Your task to perform on an android device: Empty the shopping cart on amazon.com. Search for "dell alienware" on amazon.com, select the first entry, and add it to the cart. Image 0: 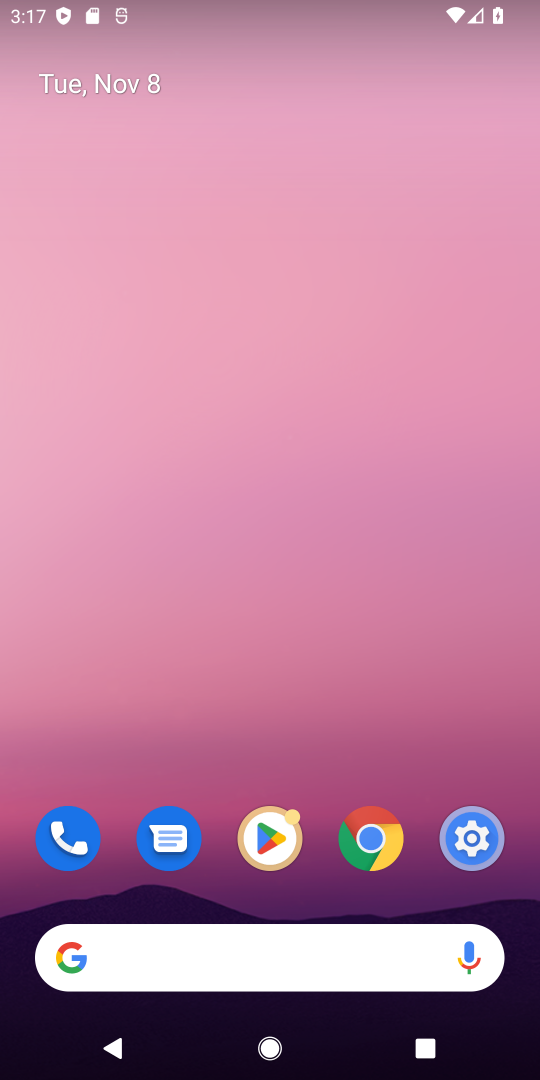
Step 0: drag from (333, 982) to (320, 135)
Your task to perform on an android device: Empty the shopping cart on amazon.com. Search for "dell alienware" on amazon.com, select the first entry, and add it to the cart. Image 1: 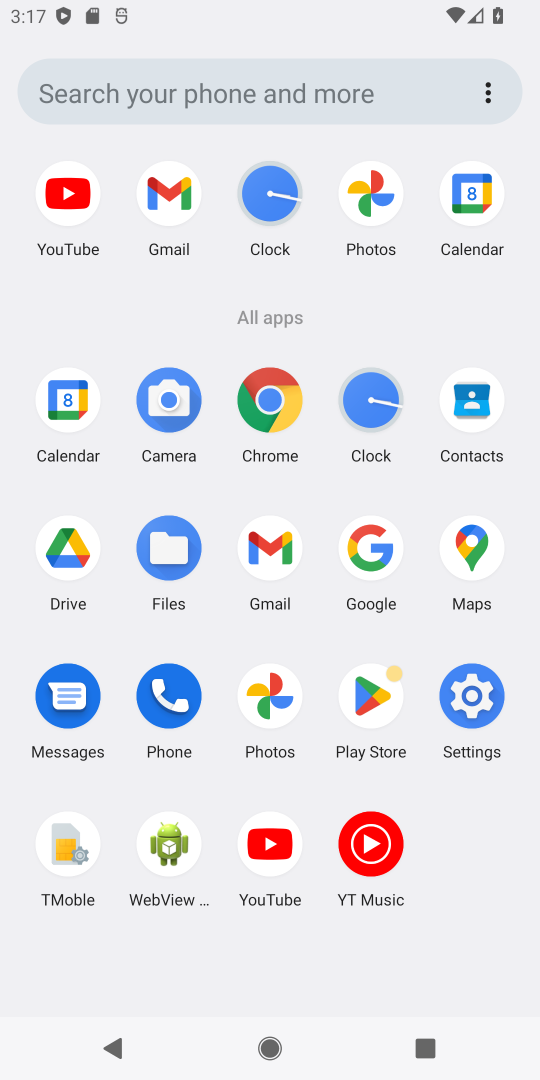
Step 1: click (261, 396)
Your task to perform on an android device: Empty the shopping cart on amazon.com. Search for "dell alienware" on amazon.com, select the first entry, and add it to the cart. Image 2: 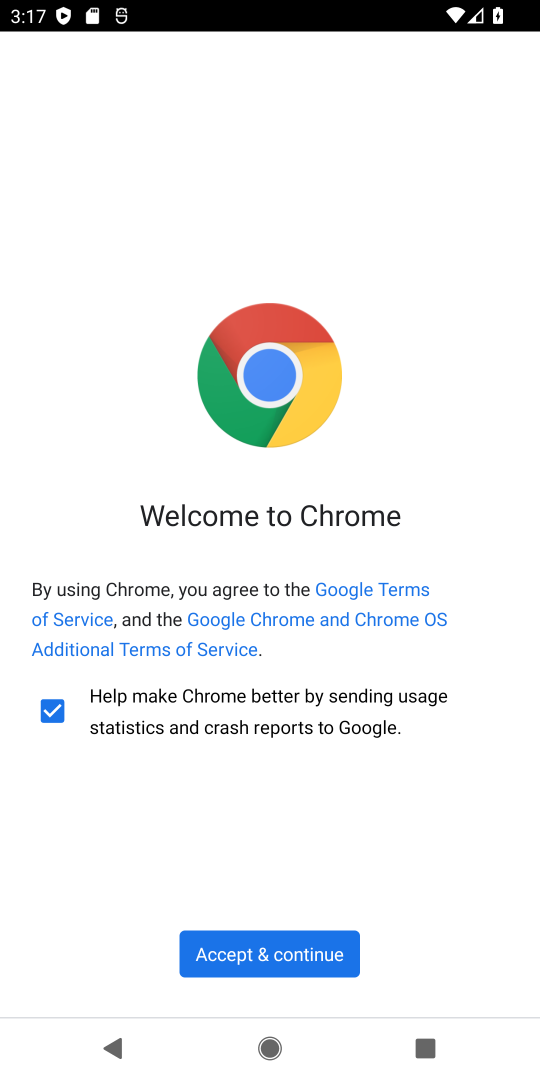
Step 2: click (298, 957)
Your task to perform on an android device: Empty the shopping cart on amazon.com. Search for "dell alienware" on amazon.com, select the first entry, and add it to the cart. Image 3: 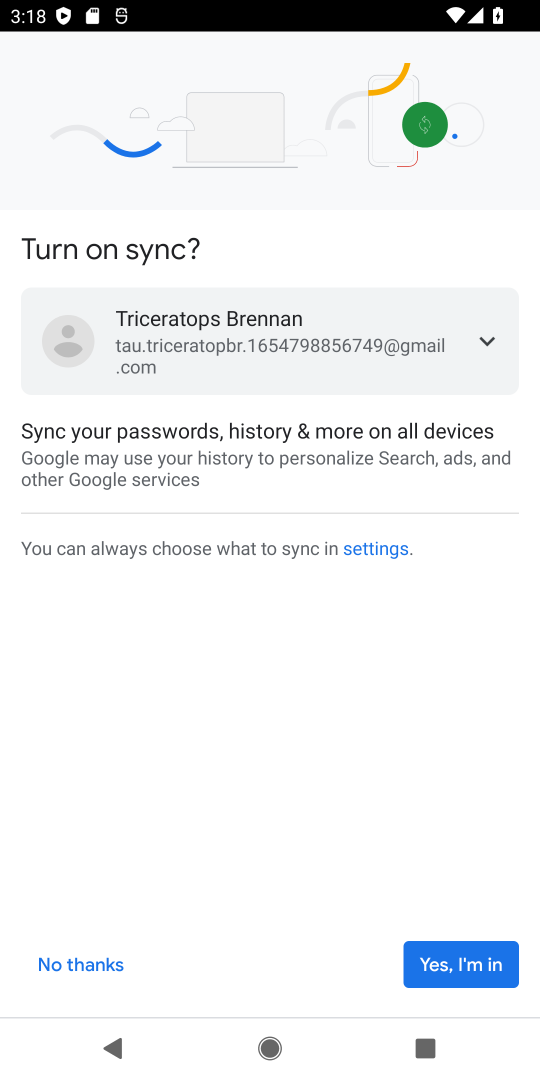
Step 3: click (460, 967)
Your task to perform on an android device: Empty the shopping cart on amazon.com. Search for "dell alienware" on amazon.com, select the first entry, and add it to the cart. Image 4: 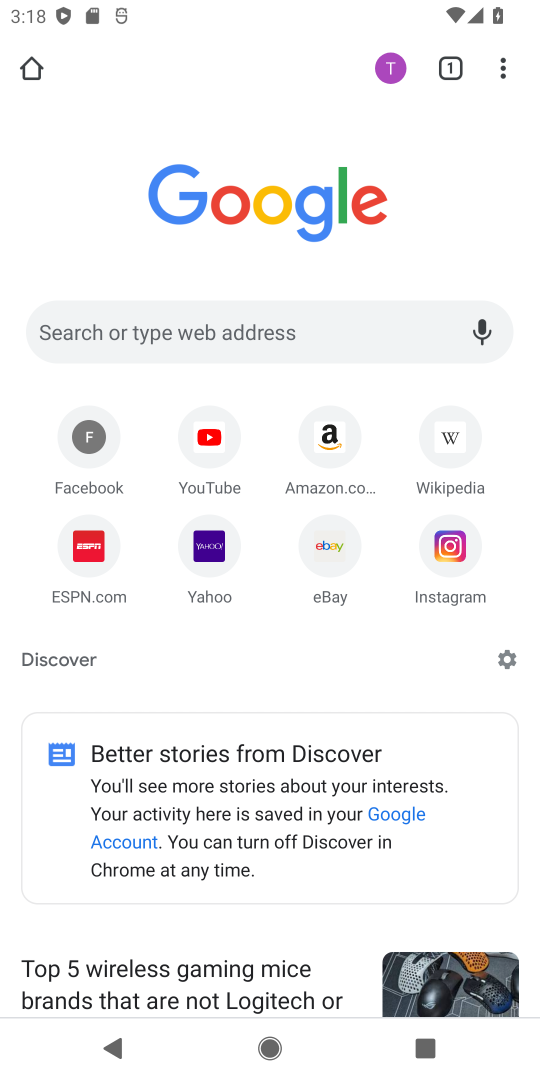
Step 4: click (192, 324)
Your task to perform on an android device: Empty the shopping cart on amazon.com. Search for "dell alienware" on amazon.com, select the first entry, and add it to the cart. Image 5: 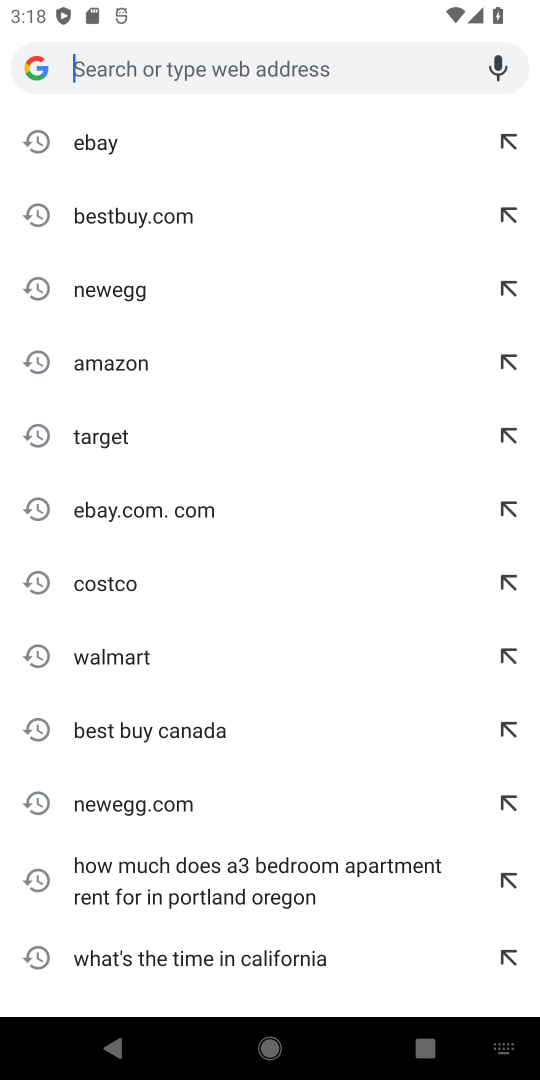
Step 5: type "amazon.com"
Your task to perform on an android device: Empty the shopping cart on amazon.com. Search for "dell alienware" on amazon.com, select the first entry, and add it to the cart. Image 6: 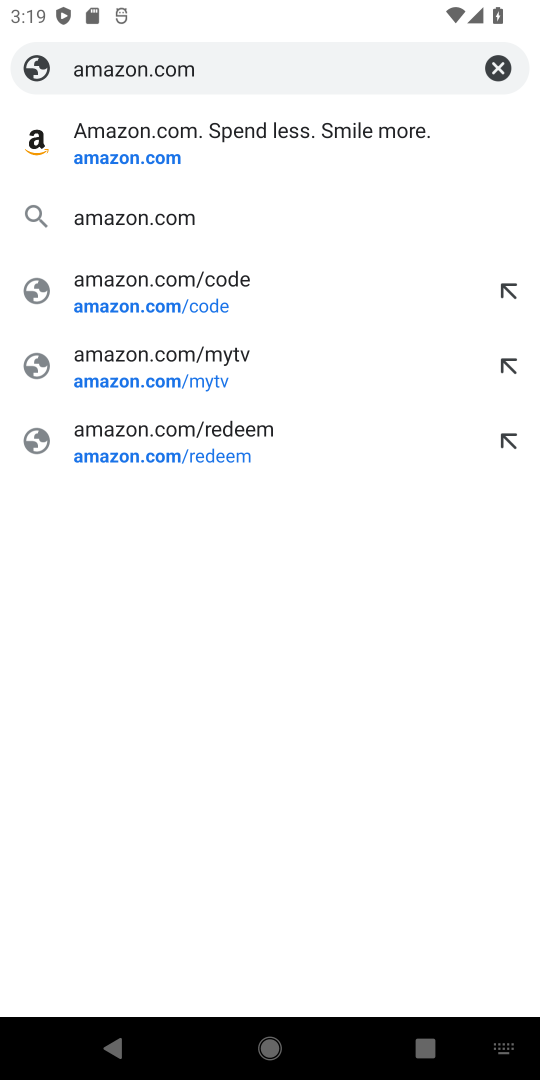
Step 6: click (136, 159)
Your task to perform on an android device: Empty the shopping cart on amazon.com. Search for "dell alienware" on amazon.com, select the first entry, and add it to the cart. Image 7: 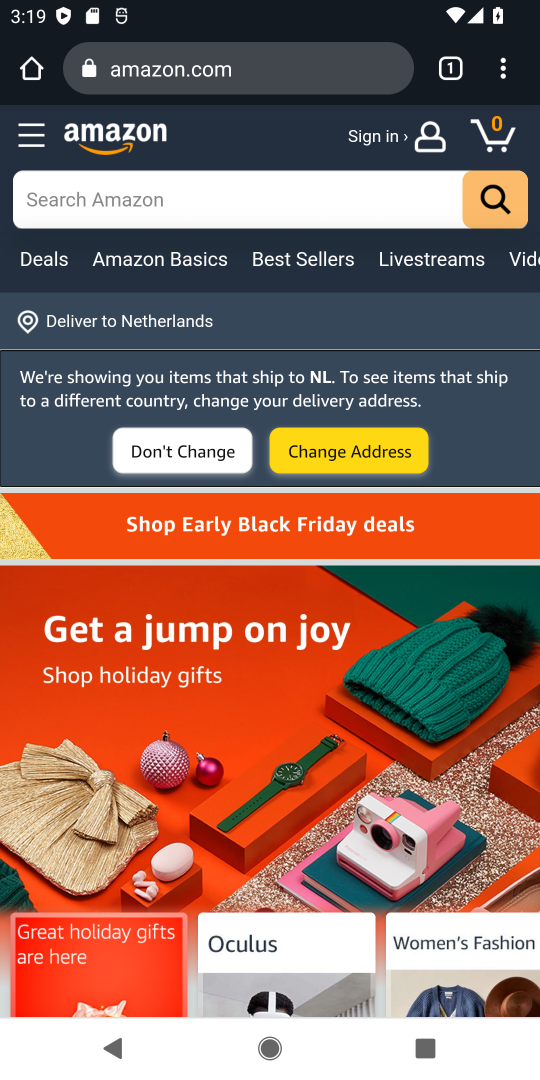
Step 7: click (254, 188)
Your task to perform on an android device: Empty the shopping cart on amazon.com. Search for "dell alienware" on amazon.com, select the first entry, and add it to the cart. Image 8: 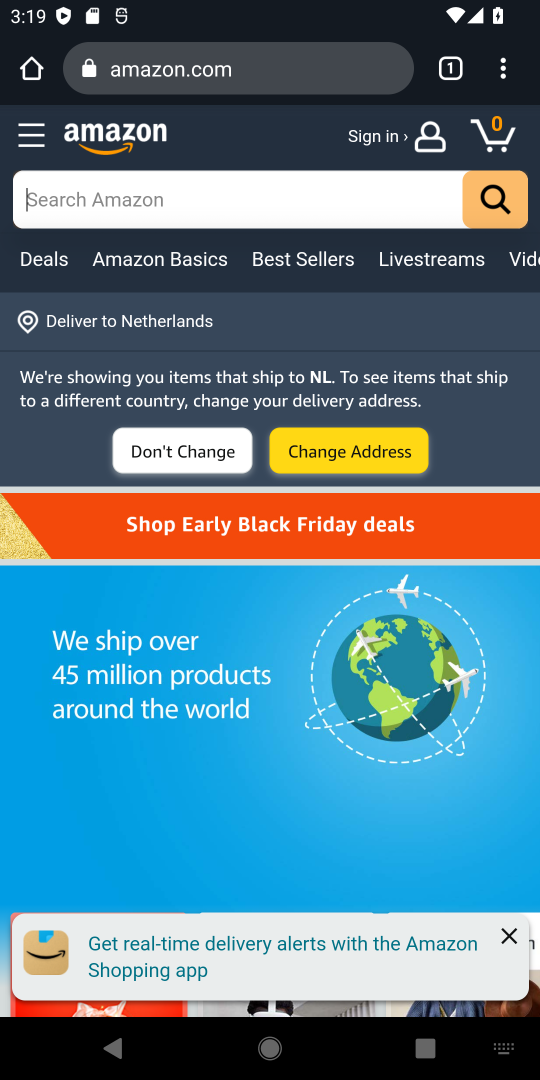
Step 8: click (498, 137)
Your task to perform on an android device: Empty the shopping cart on amazon.com. Search for "dell alienware" on amazon.com, select the first entry, and add it to the cart. Image 9: 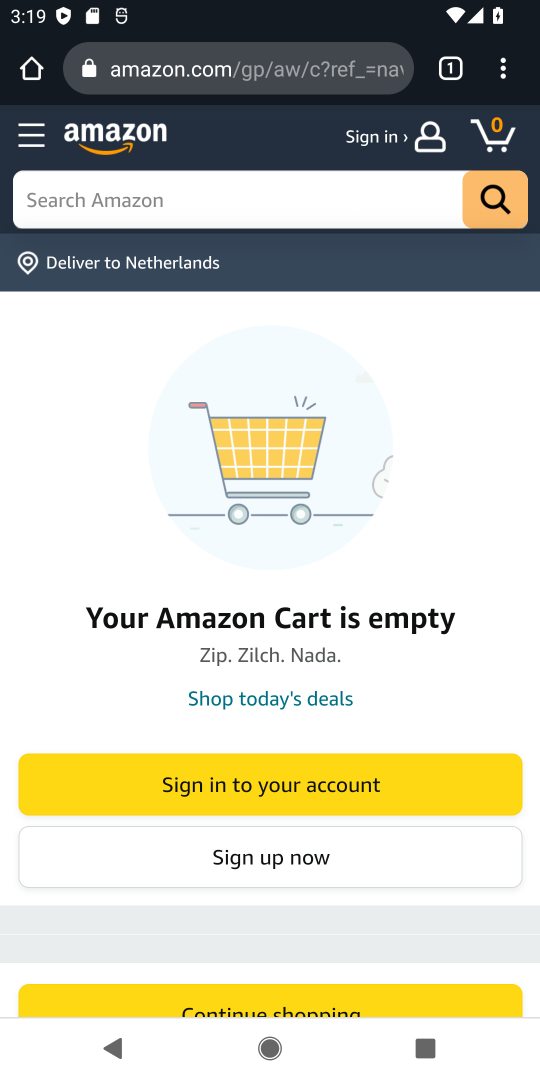
Step 9: click (78, 194)
Your task to perform on an android device: Empty the shopping cart on amazon.com. Search for "dell alienware" on amazon.com, select the first entry, and add it to the cart. Image 10: 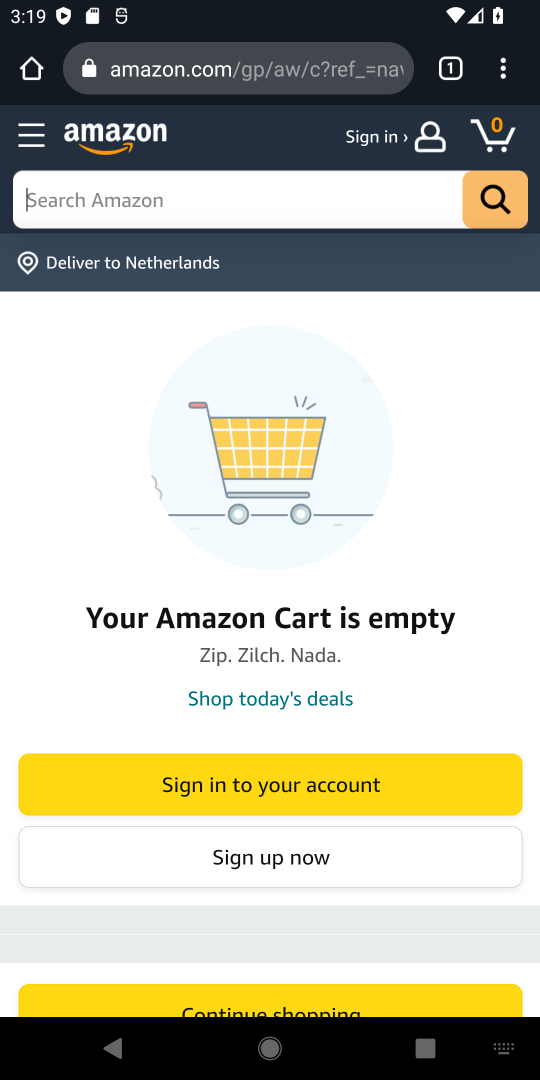
Step 10: type "dell alienware"
Your task to perform on an android device: Empty the shopping cart on amazon.com. Search for "dell alienware" on amazon.com, select the first entry, and add it to the cart. Image 11: 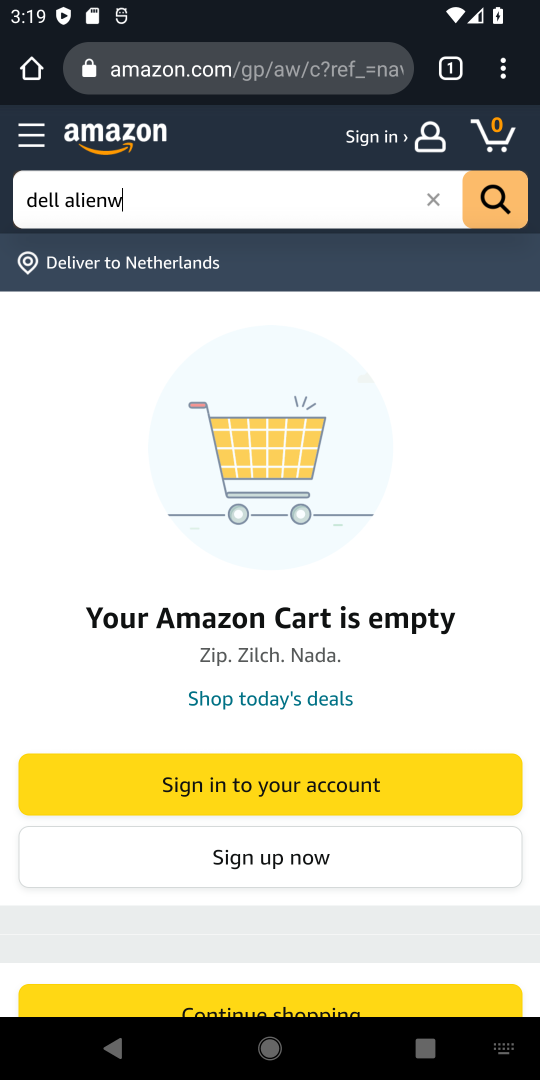
Step 11: type ""
Your task to perform on an android device: Empty the shopping cart on amazon.com. Search for "dell alienware" on amazon.com, select the first entry, and add it to the cart. Image 12: 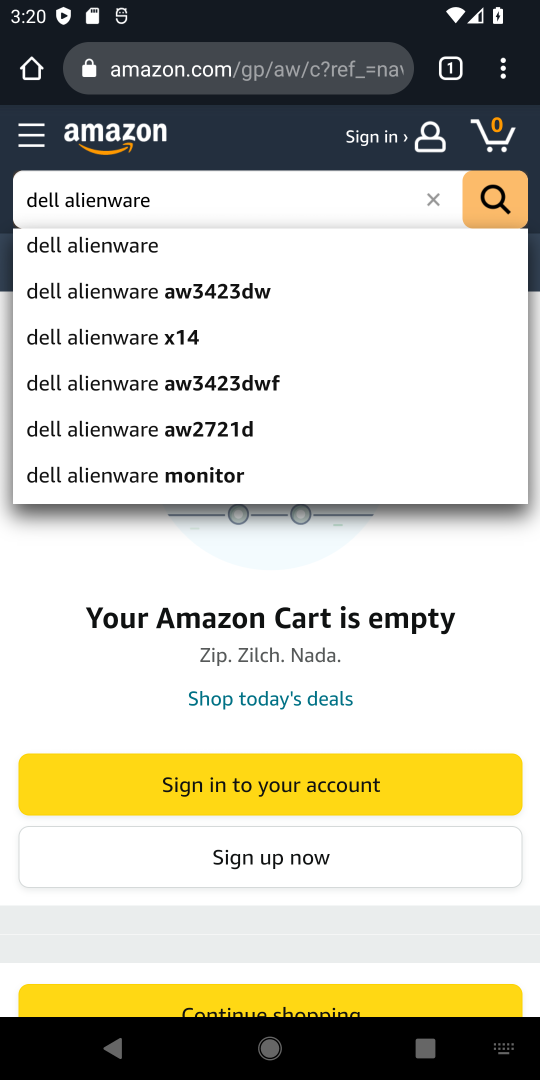
Step 12: click (120, 244)
Your task to perform on an android device: Empty the shopping cart on amazon.com. Search for "dell alienware" on amazon.com, select the first entry, and add it to the cart. Image 13: 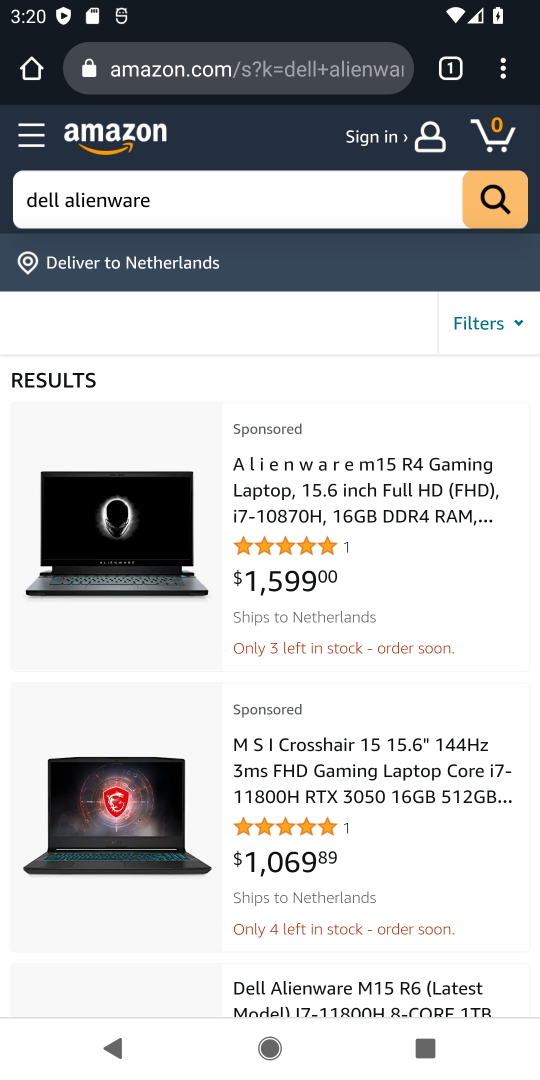
Step 13: click (152, 538)
Your task to perform on an android device: Empty the shopping cart on amazon.com. Search for "dell alienware" on amazon.com, select the first entry, and add it to the cart. Image 14: 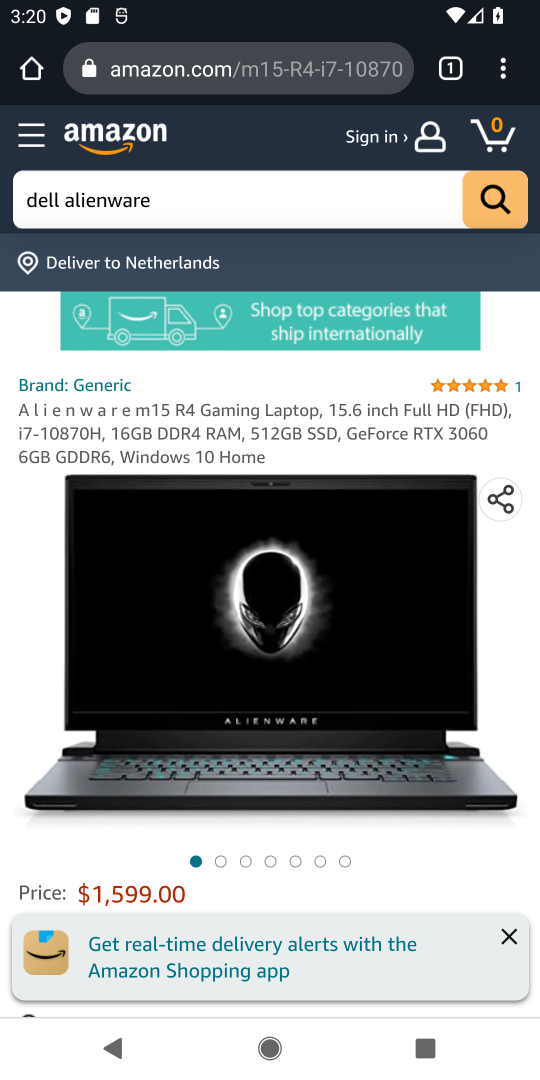
Step 14: drag from (244, 761) to (287, 281)
Your task to perform on an android device: Empty the shopping cart on amazon.com. Search for "dell alienware" on amazon.com, select the first entry, and add it to the cart. Image 15: 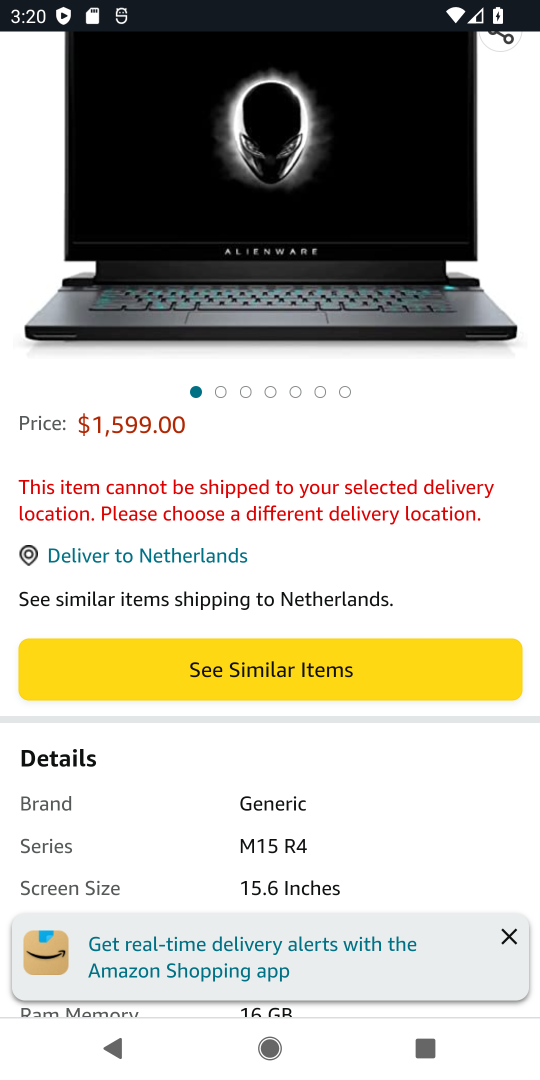
Step 15: drag from (393, 797) to (404, 318)
Your task to perform on an android device: Empty the shopping cart on amazon.com. Search for "dell alienware" on amazon.com, select the first entry, and add it to the cart. Image 16: 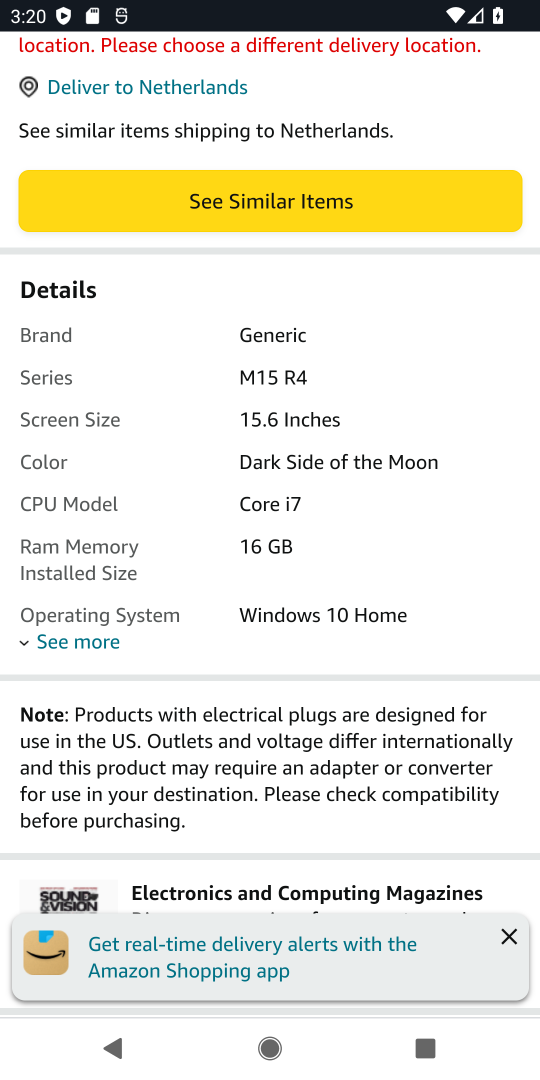
Step 16: click (507, 929)
Your task to perform on an android device: Empty the shopping cart on amazon.com. Search for "dell alienware" on amazon.com, select the first entry, and add it to the cart. Image 17: 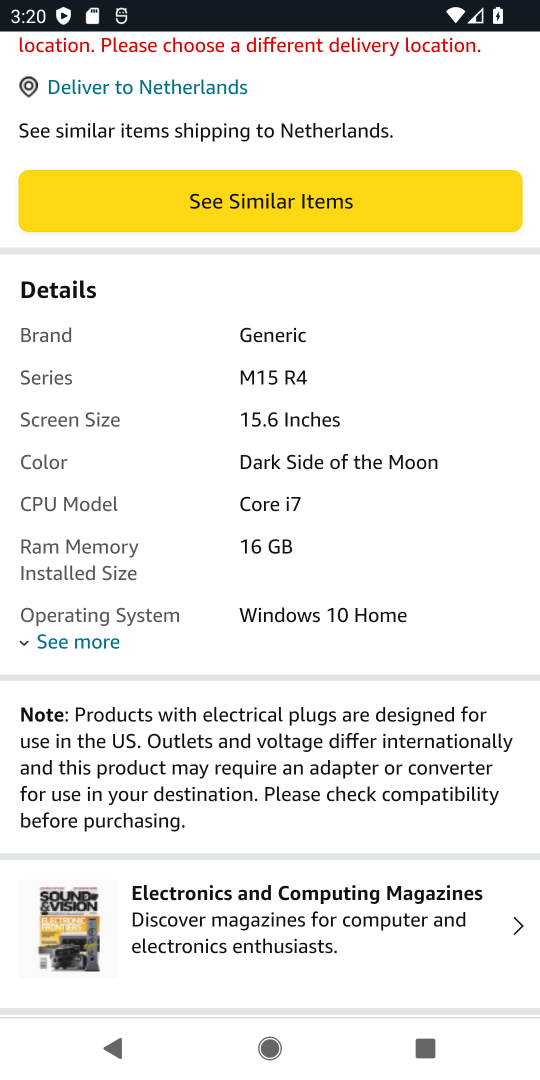
Step 17: task complete